Your task to perform on an android device: open app "LinkedIn" (install if not already installed) Image 0: 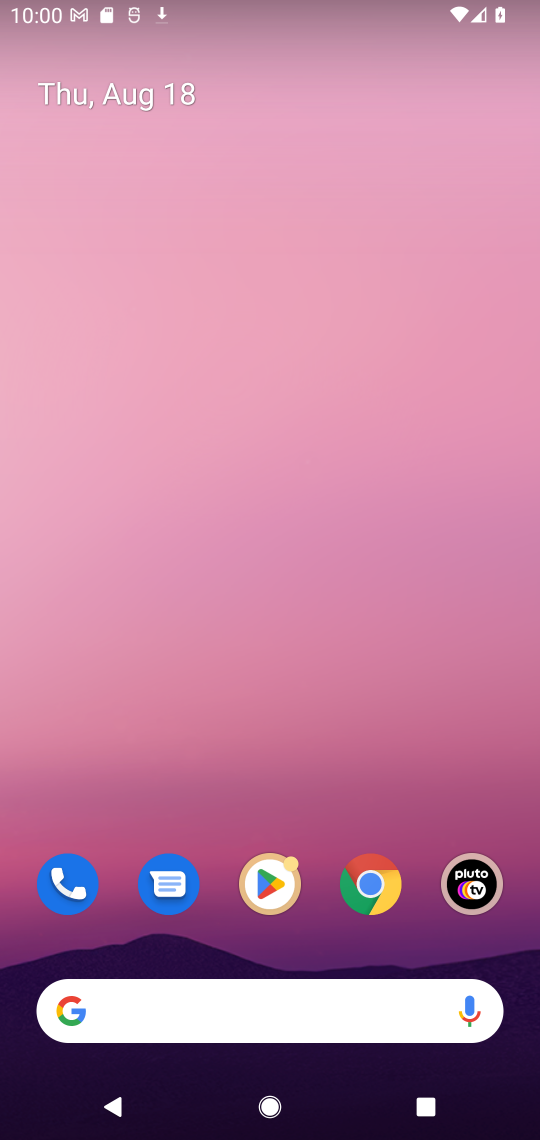
Step 0: click (258, 868)
Your task to perform on an android device: open app "LinkedIn" (install if not already installed) Image 1: 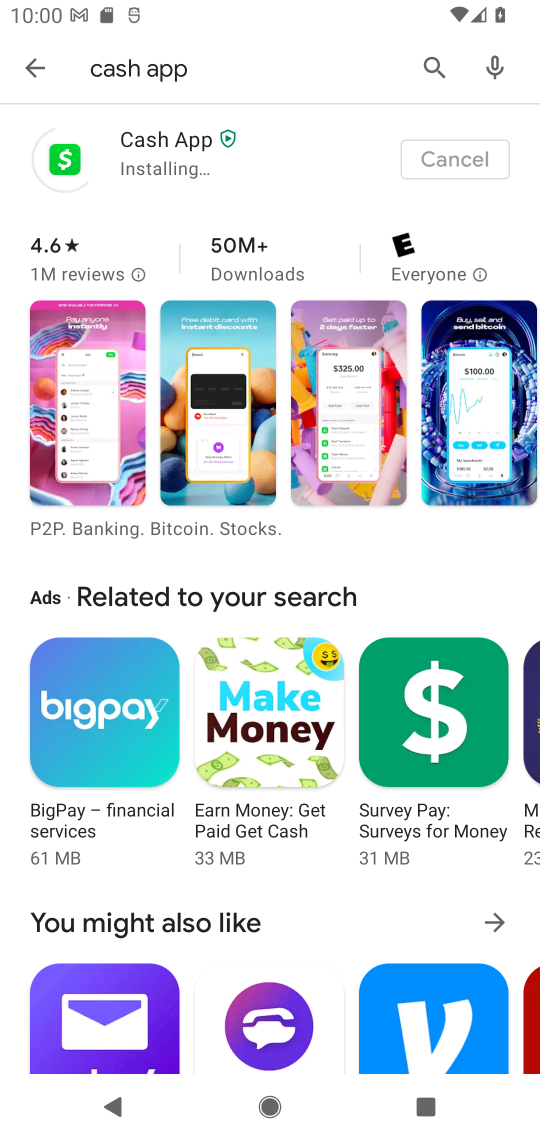
Step 1: click (425, 70)
Your task to perform on an android device: open app "LinkedIn" (install if not already installed) Image 2: 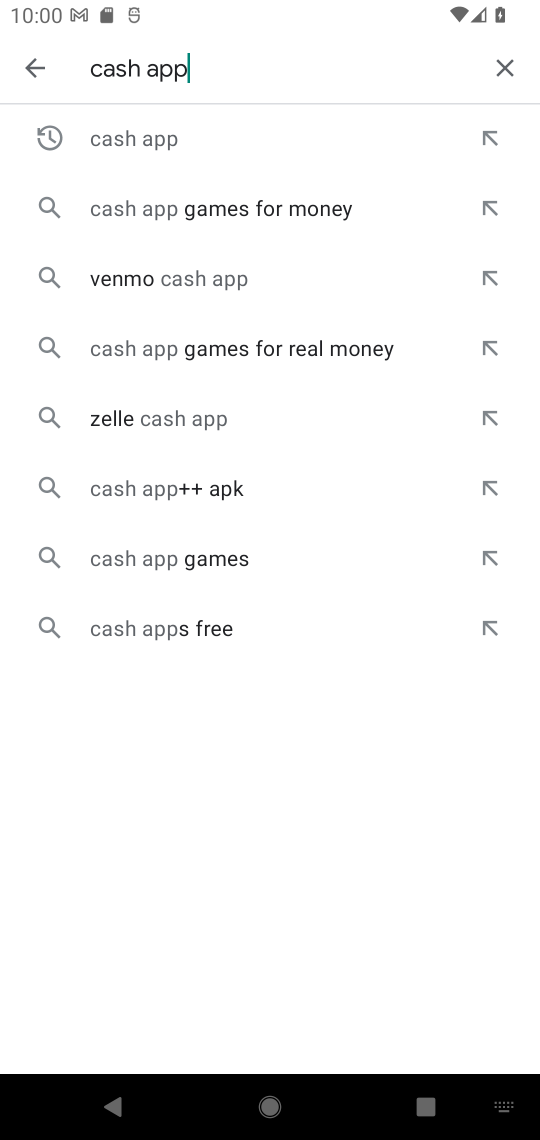
Step 2: click (499, 71)
Your task to perform on an android device: open app "LinkedIn" (install if not already installed) Image 3: 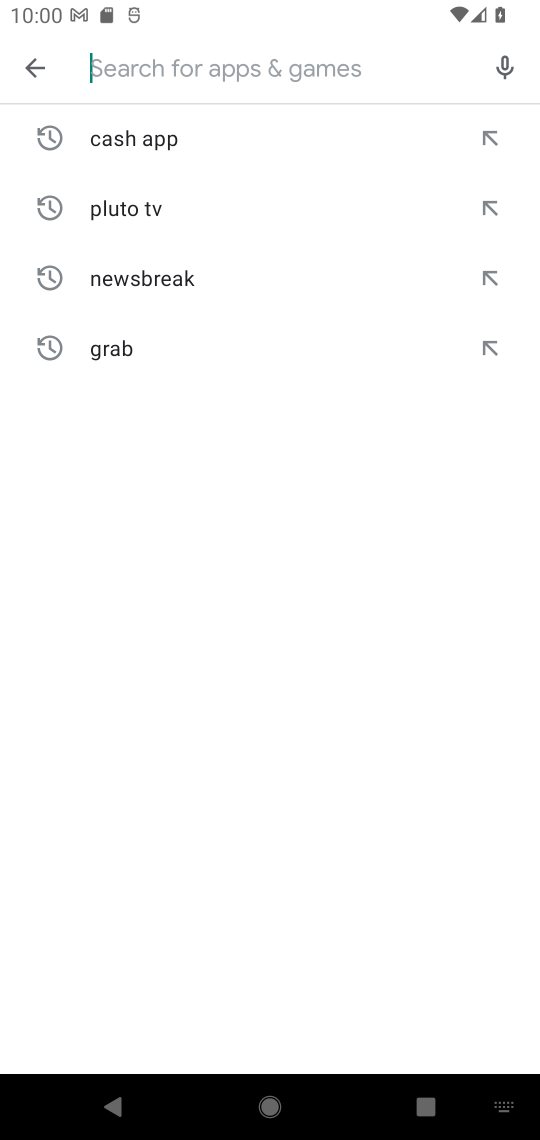
Step 3: type "linkedin"
Your task to perform on an android device: open app "LinkedIn" (install if not already installed) Image 4: 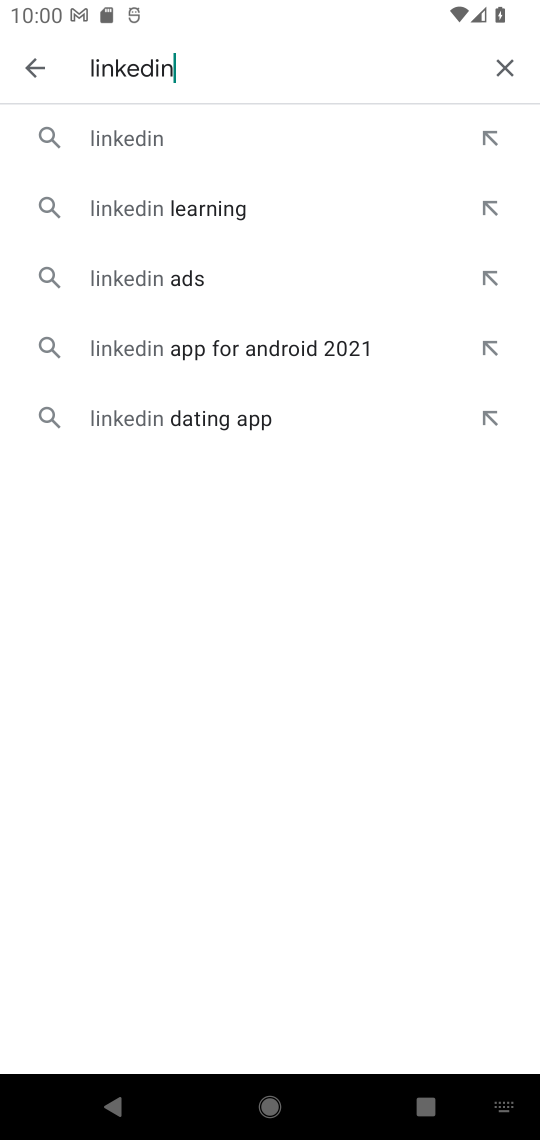
Step 4: click (98, 160)
Your task to perform on an android device: open app "LinkedIn" (install if not already installed) Image 5: 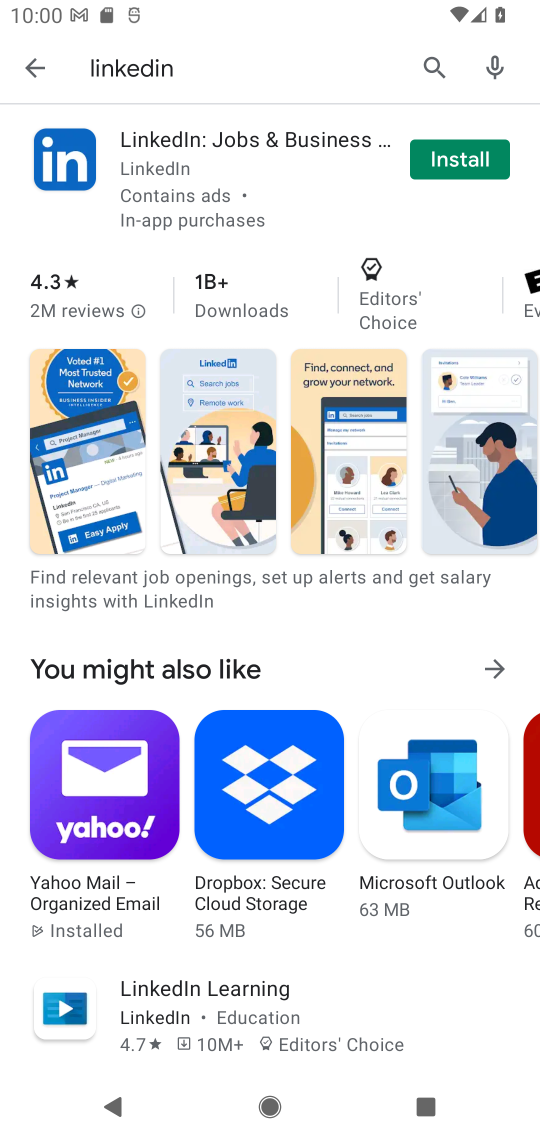
Step 5: click (461, 172)
Your task to perform on an android device: open app "LinkedIn" (install if not already installed) Image 6: 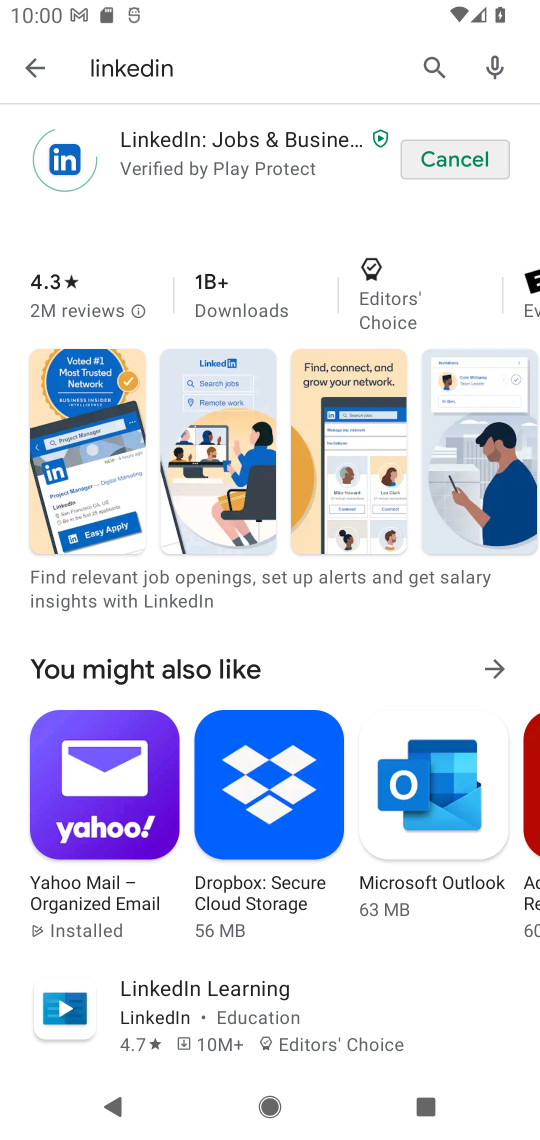
Step 6: task complete